Your task to perform on an android device: turn on priority inbox in the gmail app Image 0: 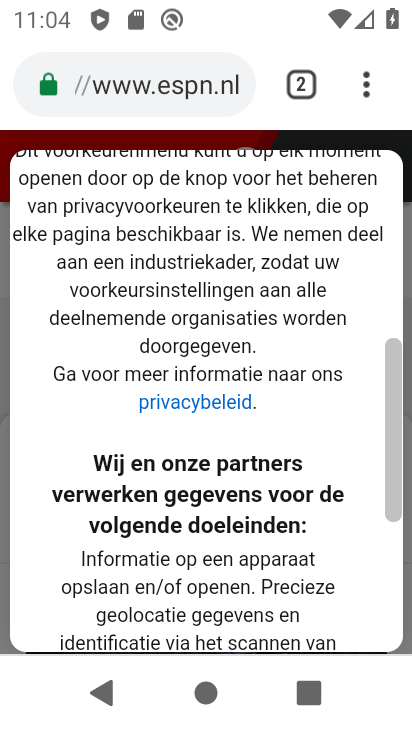
Step 0: press home button
Your task to perform on an android device: turn on priority inbox in the gmail app Image 1: 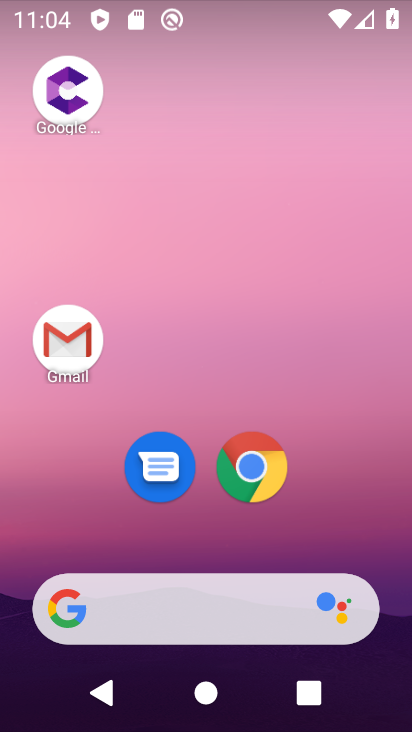
Step 1: drag from (376, 545) to (337, 2)
Your task to perform on an android device: turn on priority inbox in the gmail app Image 2: 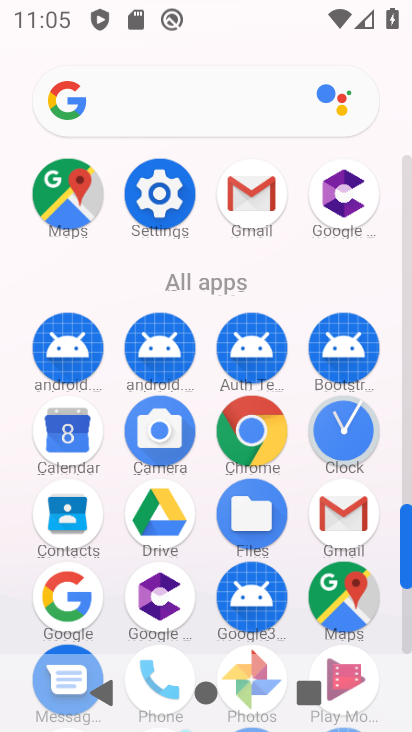
Step 2: click (262, 195)
Your task to perform on an android device: turn on priority inbox in the gmail app Image 3: 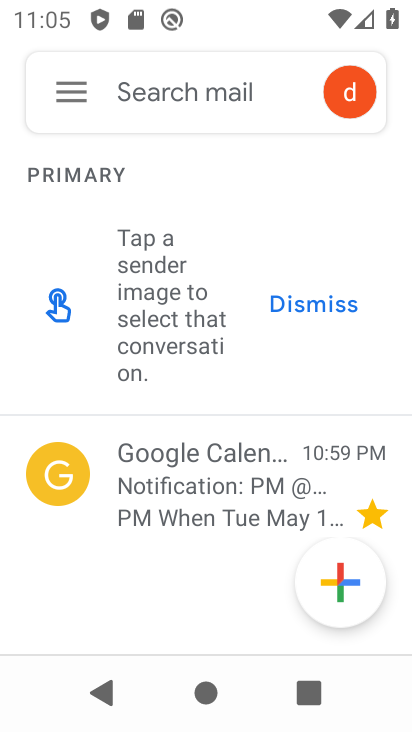
Step 3: click (76, 91)
Your task to perform on an android device: turn on priority inbox in the gmail app Image 4: 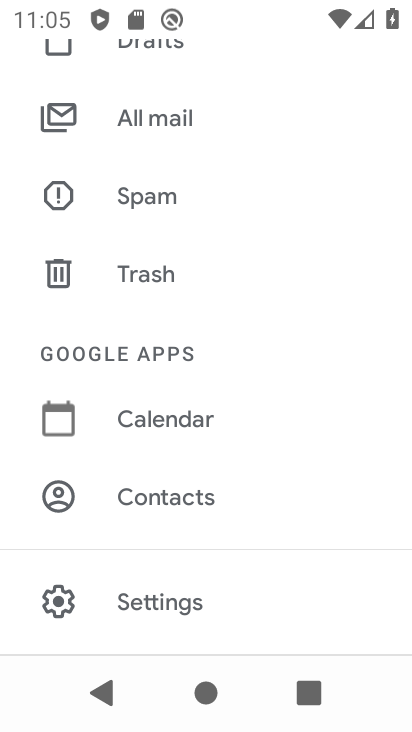
Step 4: click (294, 613)
Your task to perform on an android device: turn on priority inbox in the gmail app Image 5: 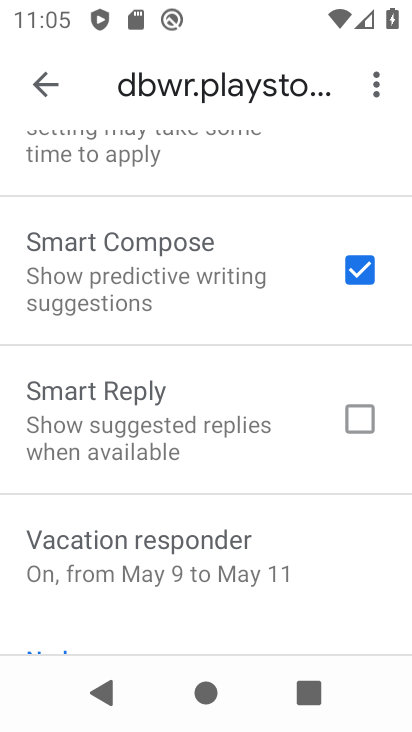
Step 5: drag from (259, 186) to (249, 528)
Your task to perform on an android device: turn on priority inbox in the gmail app Image 6: 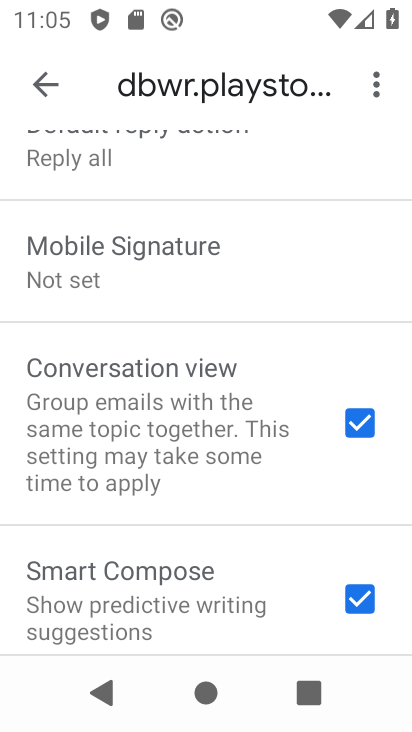
Step 6: drag from (195, 171) to (153, 669)
Your task to perform on an android device: turn on priority inbox in the gmail app Image 7: 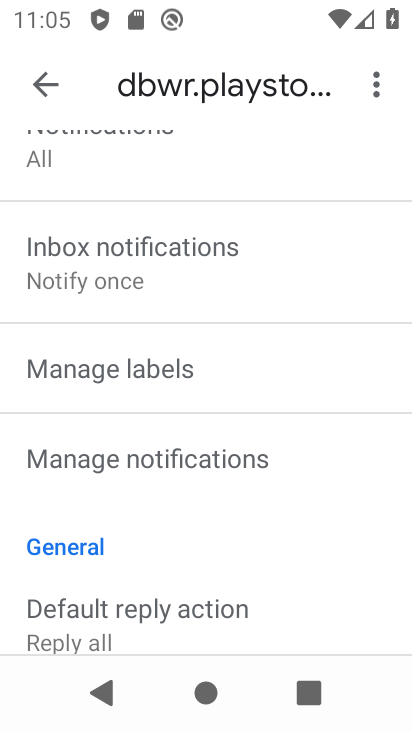
Step 7: drag from (157, 268) to (223, 730)
Your task to perform on an android device: turn on priority inbox in the gmail app Image 8: 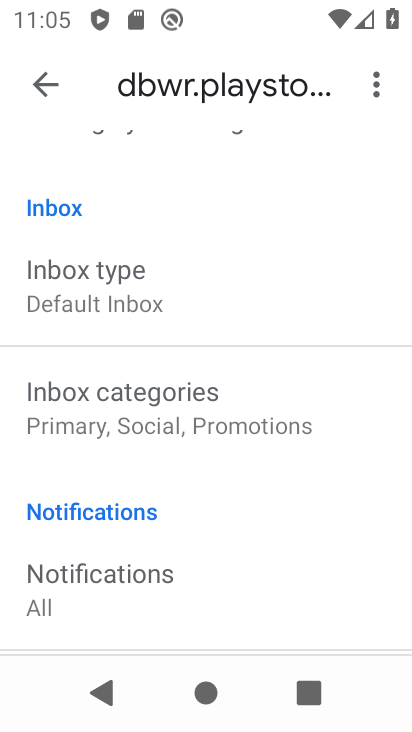
Step 8: click (160, 317)
Your task to perform on an android device: turn on priority inbox in the gmail app Image 9: 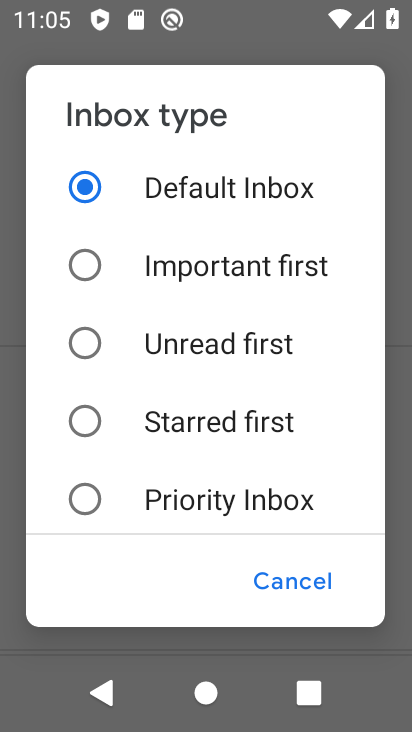
Step 9: click (229, 512)
Your task to perform on an android device: turn on priority inbox in the gmail app Image 10: 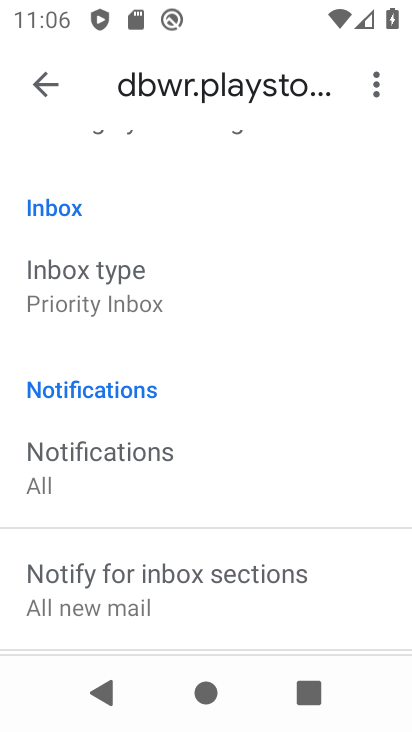
Step 10: task complete